Your task to perform on an android device: What's the news in Indonesia? Image 0: 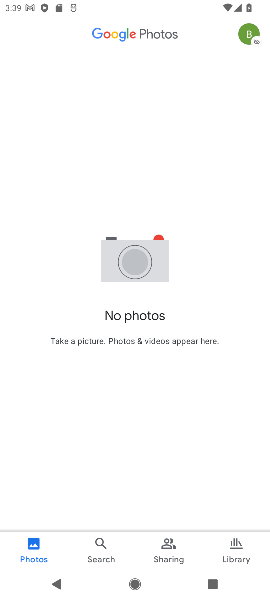
Step 0: press home button
Your task to perform on an android device: What's the news in Indonesia? Image 1: 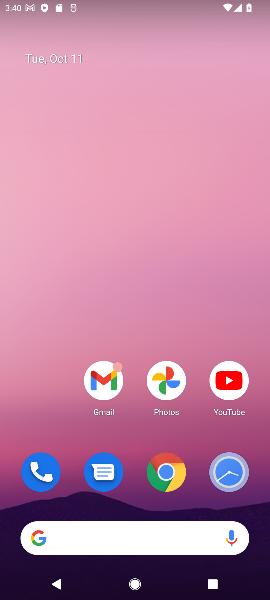
Step 1: click (129, 533)
Your task to perform on an android device: What's the news in Indonesia? Image 2: 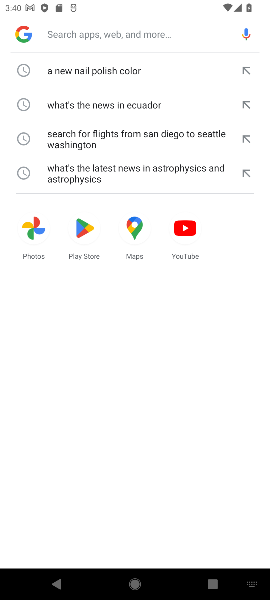
Step 2: type "What's the news in Indonesia?"
Your task to perform on an android device: What's the news in Indonesia? Image 3: 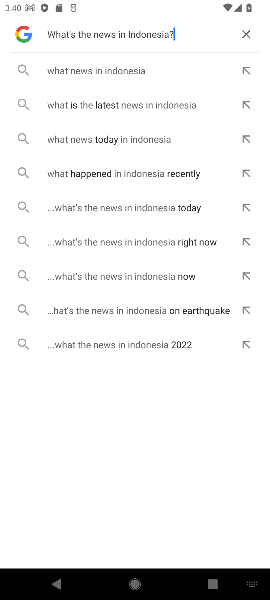
Step 3: click (121, 68)
Your task to perform on an android device: What's the news in Indonesia? Image 4: 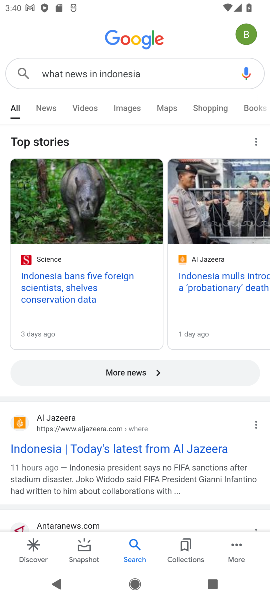
Step 4: task complete